Your task to perform on an android device: What's on my calendar tomorrow? Image 0: 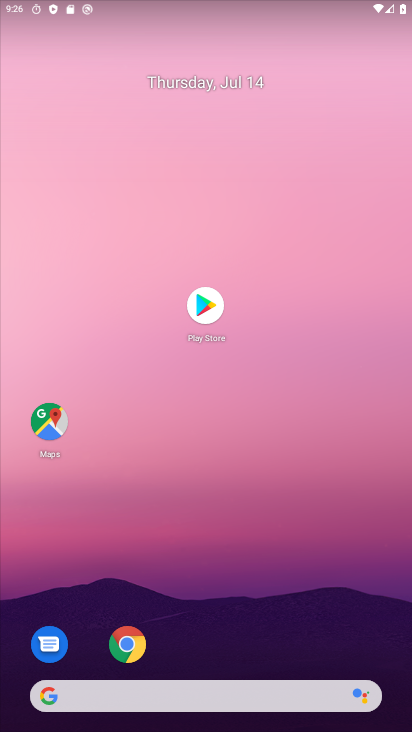
Step 0: drag from (204, 640) to (256, 177)
Your task to perform on an android device: What's on my calendar tomorrow? Image 1: 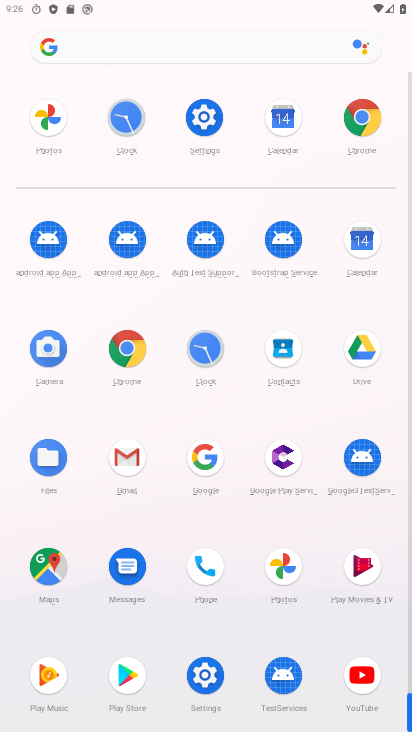
Step 1: click (353, 238)
Your task to perform on an android device: What's on my calendar tomorrow? Image 2: 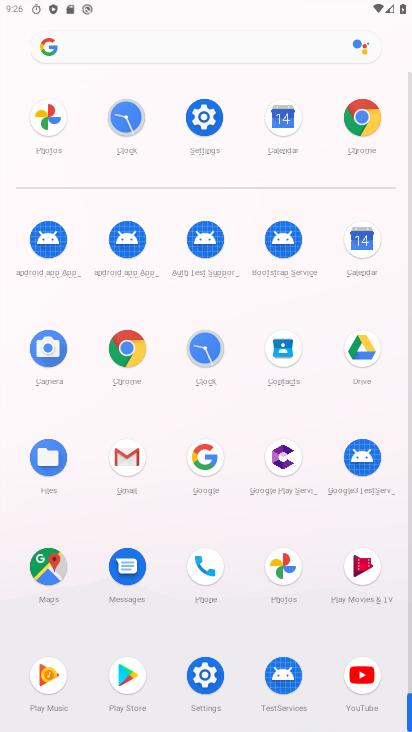
Step 2: click (355, 235)
Your task to perform on an android device: What's on my calendar tomorrow? Image 3: 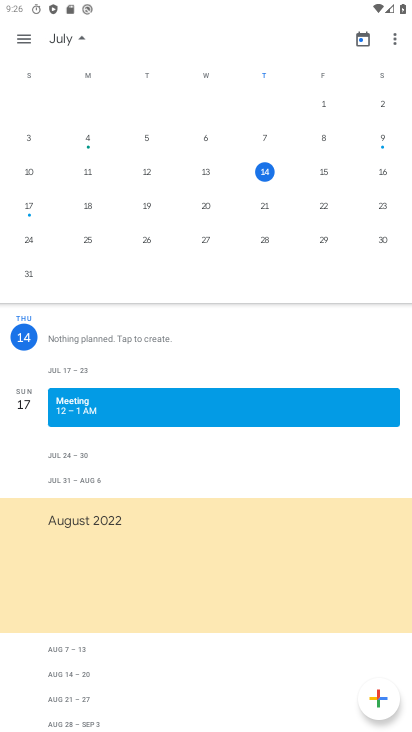
Step 3: drag from (238, 450) to (239, 268)
Your task to perform on an android device: What's on my calendar tomorrow? Image 4: 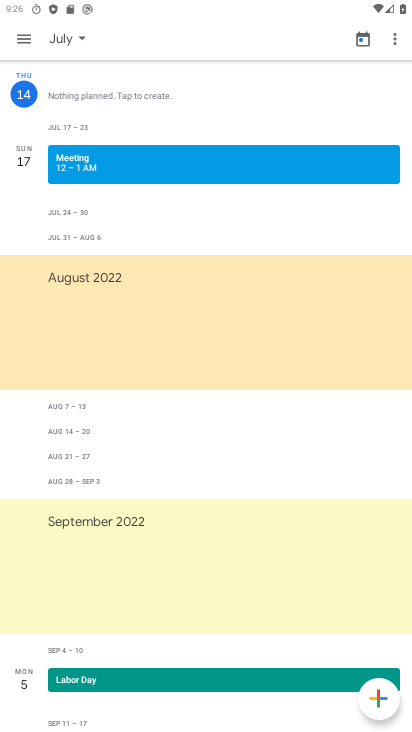
Step 4: drag from (322, 209) to (243, 679)
Your task to perform on an android device: What's on my calendar tomorrow? Image 5: 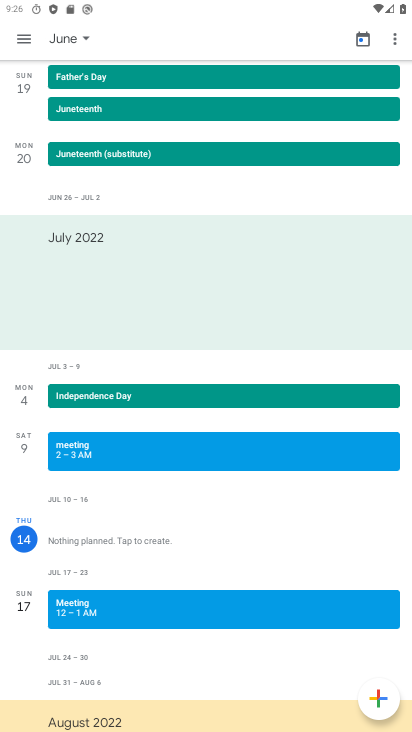
Step 5: drag from (304, 220) to (273, 488)
Your task to perform on an android device: What's on my calendar tomorrow? Image 6: 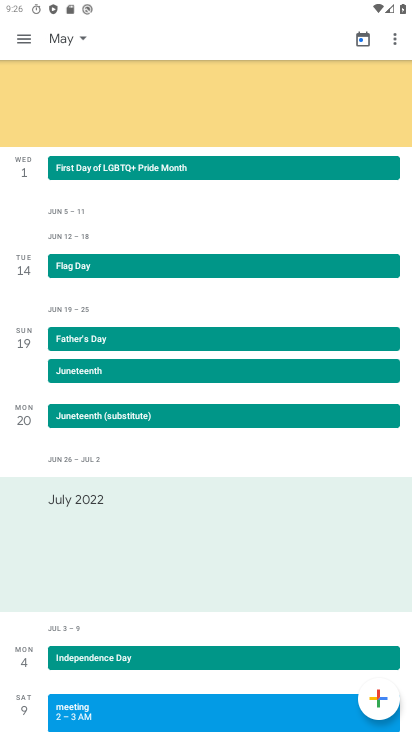
Step 6: click (364, 41)
Your task to perform on an android device: What's on my calendar tomorrow? Image 7: 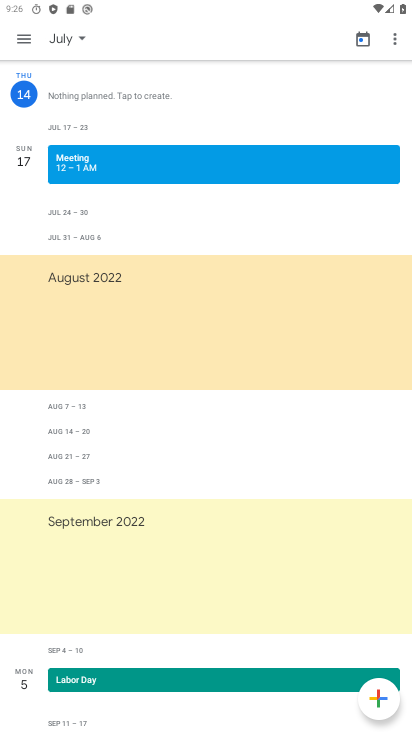
Step 7: click (76, 43)
Your task to perform on an android device: What's on my calendar tomorrow? Image 8: 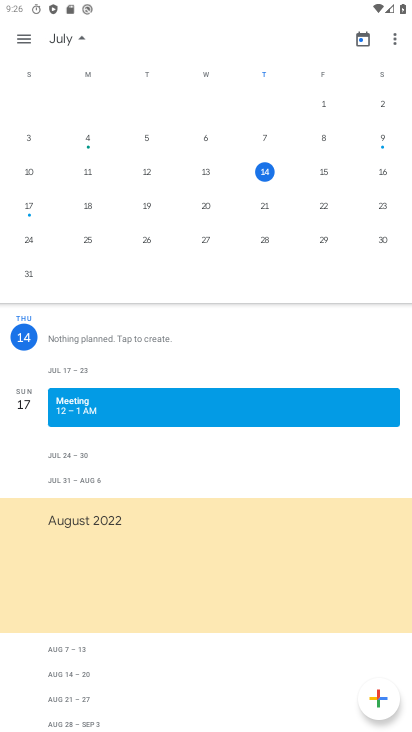
Step 8: click (319, 175)
Your task to perform on an android device: What's on my calendar tomorrow? Image 9: 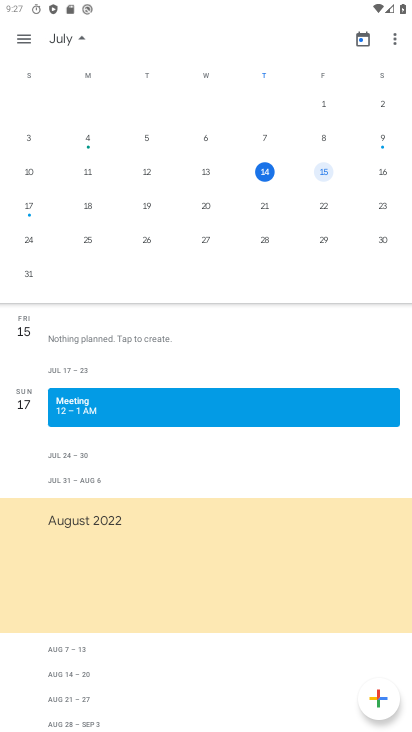
Step 9: task complete